Your task to perform on an android device: delete the emails in spam in the gmail app Image 0: 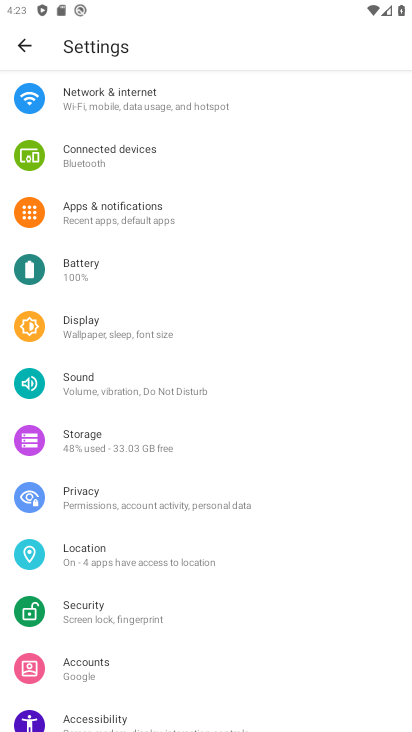
Step 0: press home button
Your task to perform on an android device: delete the emails in spam in the gmail app Image 1: 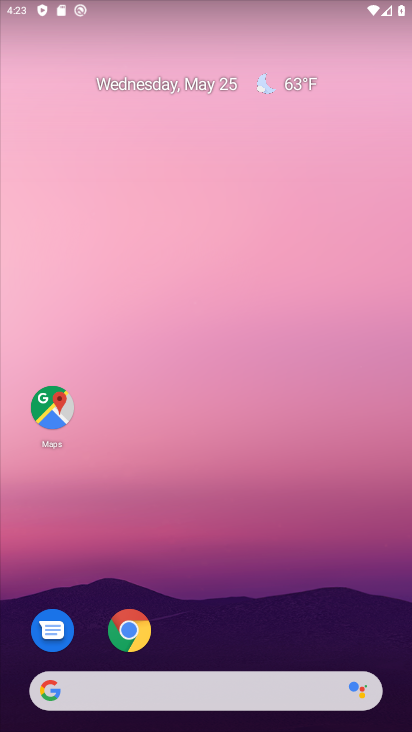
Step 1: drag from (190, 605) to (316, 88)
Your task to perform on an android device: delete the emails in spam in the gmail app Image 2: 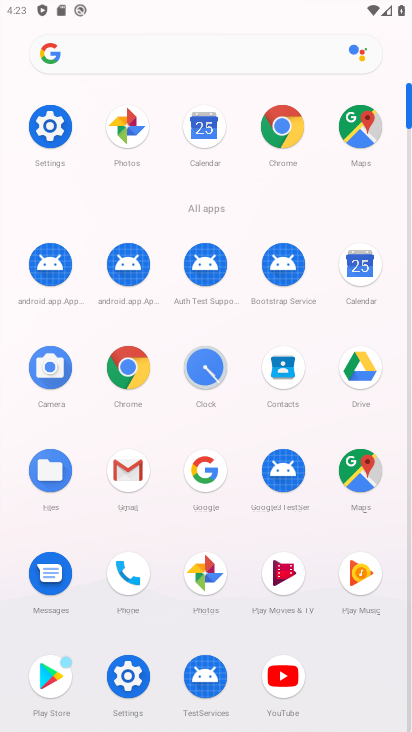
Step 2: click (124, 476)
Your task to perform on an android device: delete the emails in spam in the gmail app Image 3: 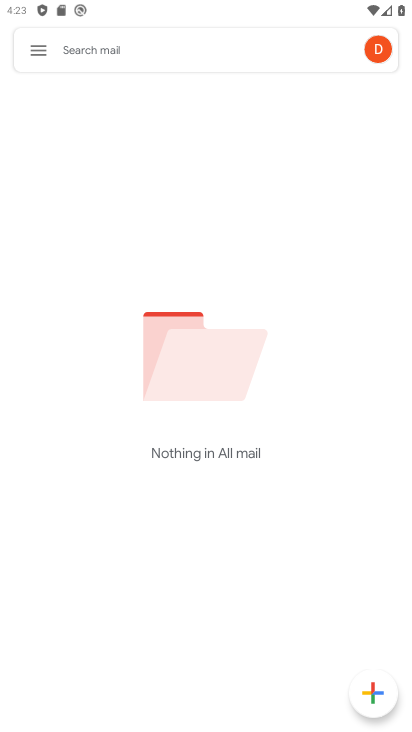
Step 3: click (38, 42)
Your task to perform on an android device: delete the emails in spam in the gmail app Image 4: 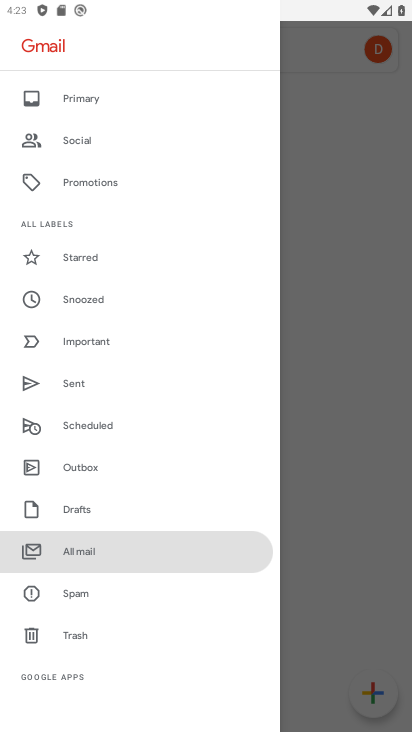
Step 4: click (88, 603)
Your task to perform on an android device: delete the emails in spam in the gmail app Image 5: 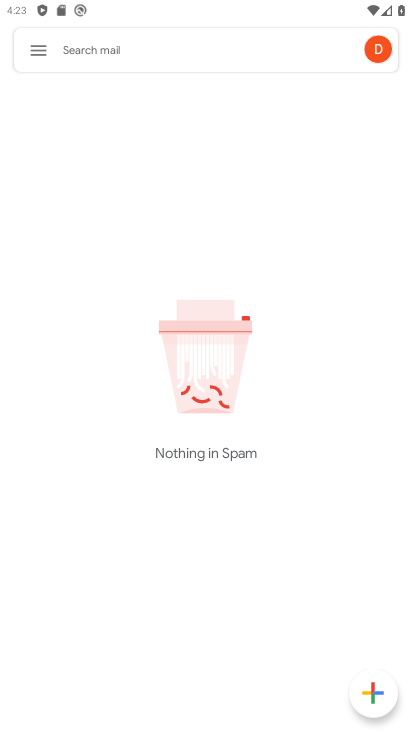
Step 5: task complete